Your task to perform on an android device: What's the weather going to be tomorrow? Image 0: 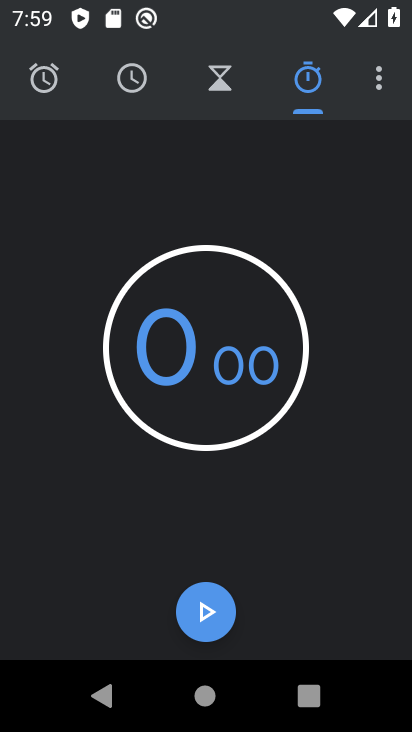
Step 0: press home button
Your task to perform on an android device: What's the weather going to be tomorrow? Image 1: 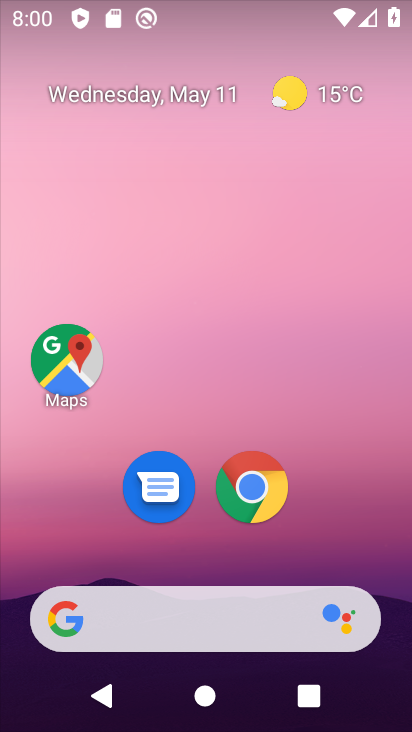
Step 1: drag from (304, 660) to (220, 214)
Your task to perform on an android device: What's the weather going to be tomorrow? Image 2: 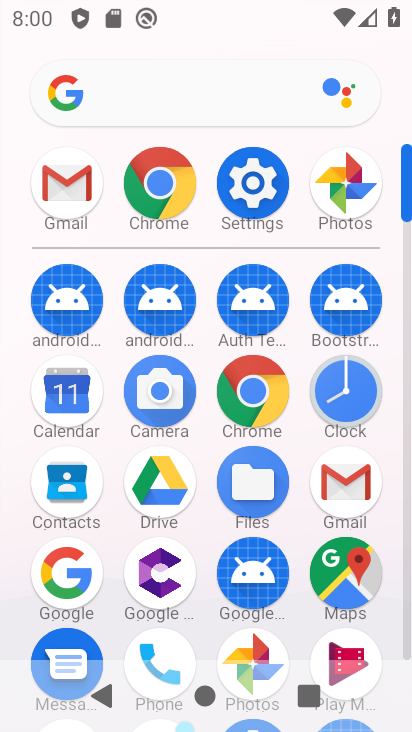
Step 2: click (134, 100)
Your task to perform on an android device: What's the weather going to be tomorrow? Image 3: 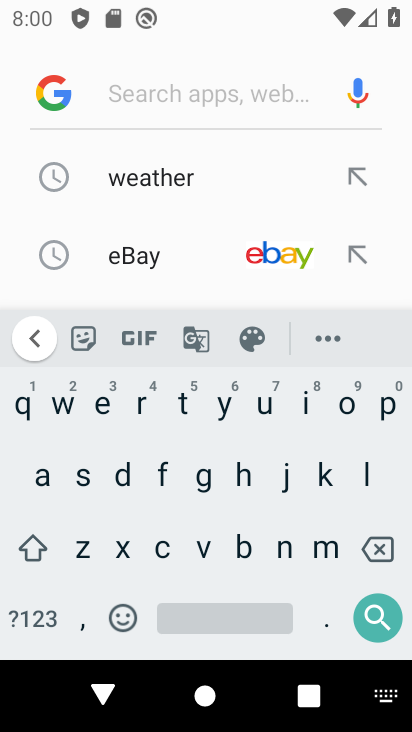
Step 3: click (203, 202)
Your task to perform on an android device: What's the weather going to be tomorrow? Image 4: 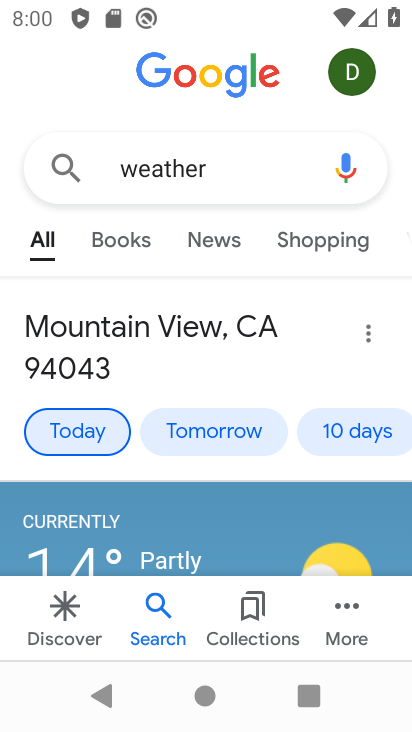
Step 4: click (226, 440)
Your task to perform on an android device: What's the weather going to be tomorrow? Image 5: 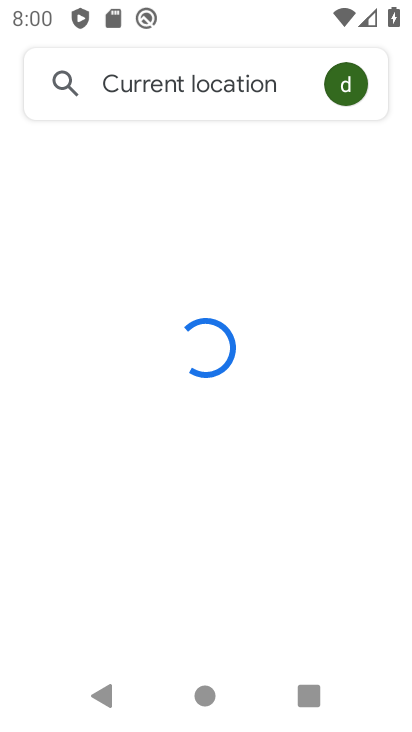
Step 5: task complete